Your task to perform on an android device: open app "YouTube Kids" Image 0: 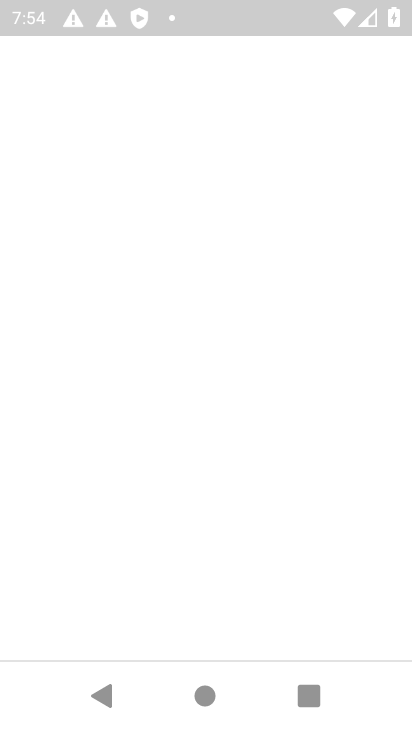
Step 0: task impossible